Your task to perform on an android device: Go to Maps Image 0: 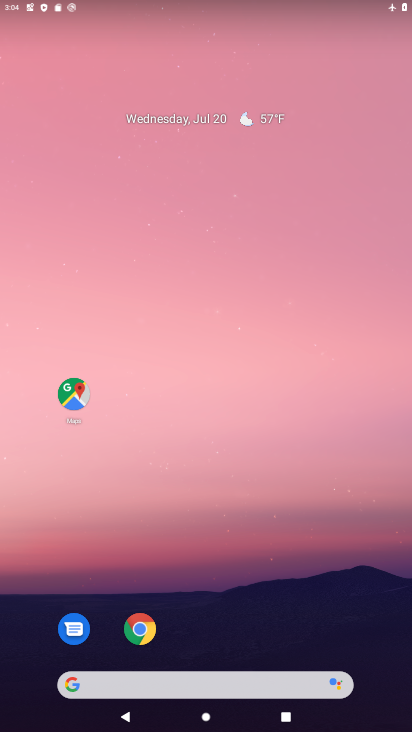
Step 0: click (84, 388)
Your task to perform on an android device: Go to Maps Image 1: 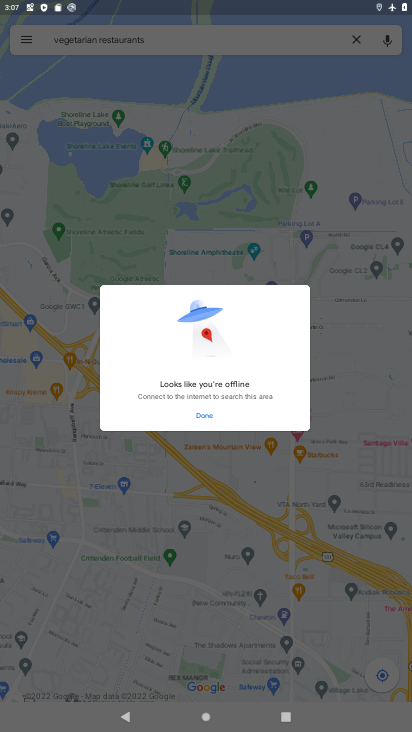
Step 1: task complete